Your task to perform on an android device: Go to eBay Image 0: 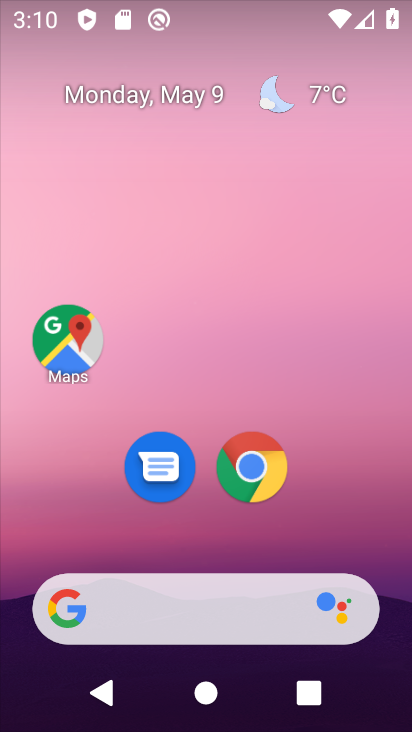
Step 0: click (254, 461)
Your task to perform on an android device: Go to eBay Image 1: 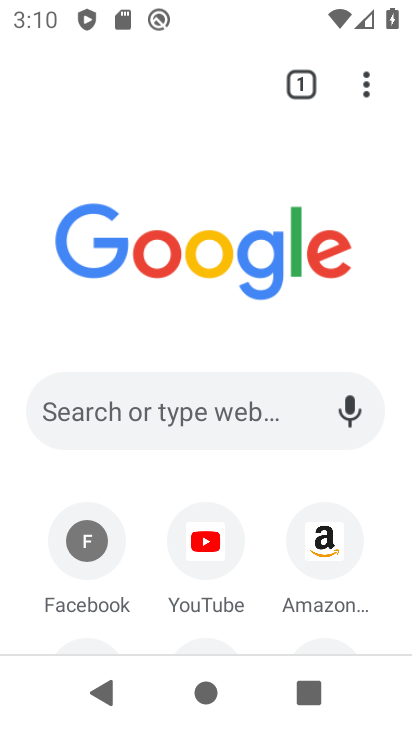
Step 1: drag from (386, 558) to (371, 344)
Your task to perform on an android device: Go to eBay Image 2: 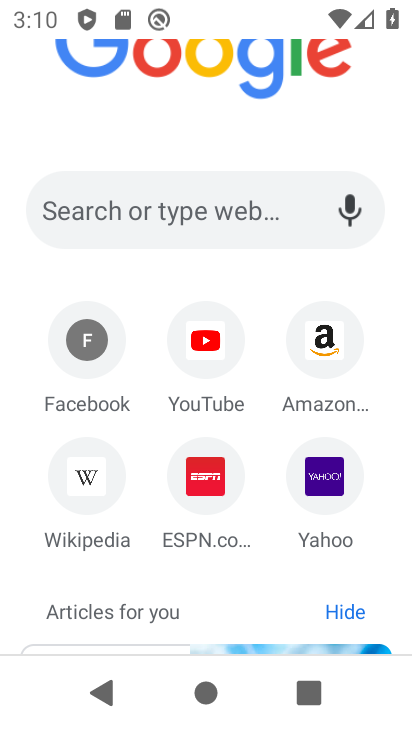
Step 2: click (78, 238)
Your task to perform on an android device: Go to eBay Image 3: 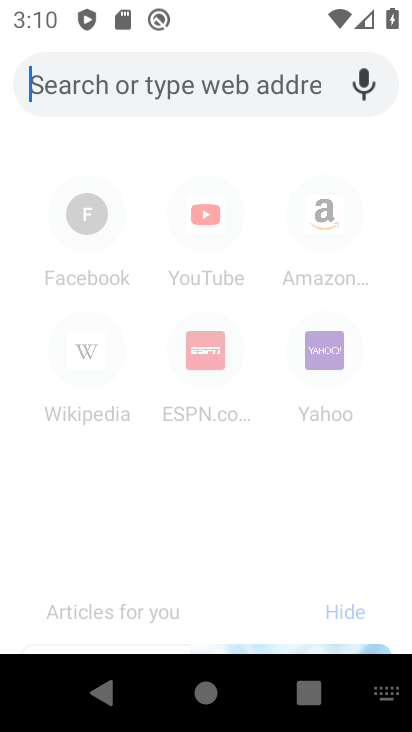
Step 3: type "ebay"
Your task to perform on an android device: Go to eBay Image 4: 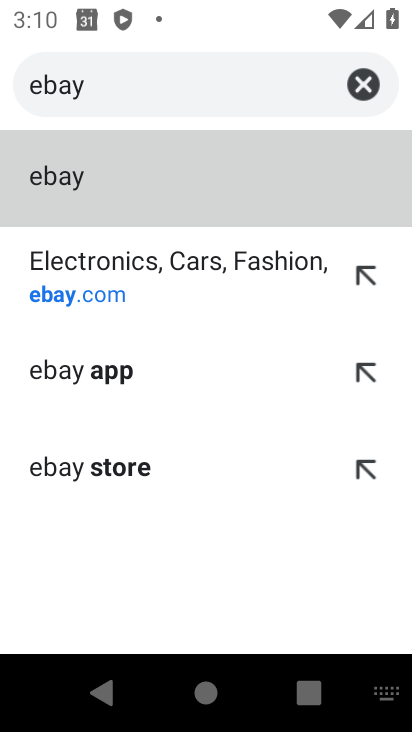
Step 4: click (77, 184)
Your task to perform on an android device: Go to eBay Image 5: 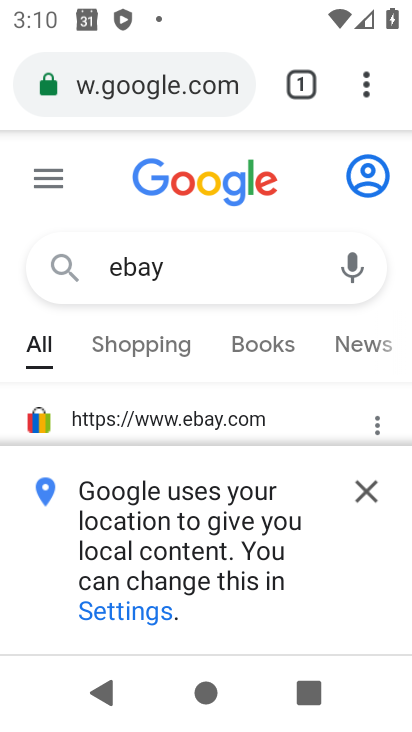
Step 5: drag from (160, 382) to (150, 211)
Your task to perform on an android device: Go to eBay Image 6: 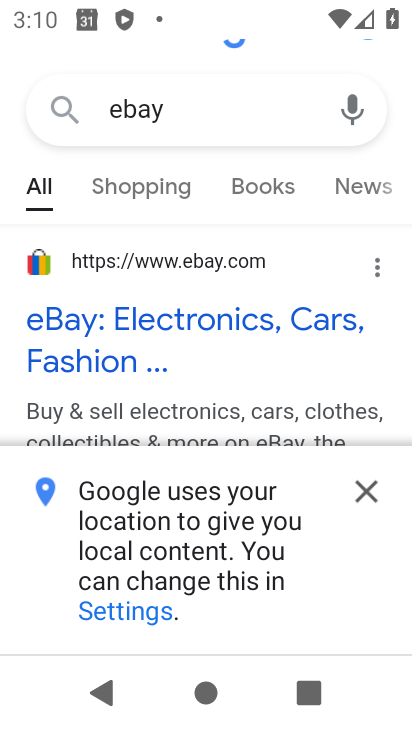
Step 6: click (55, 267)
Your task to perform on an android device: Go to eBay Image 7: 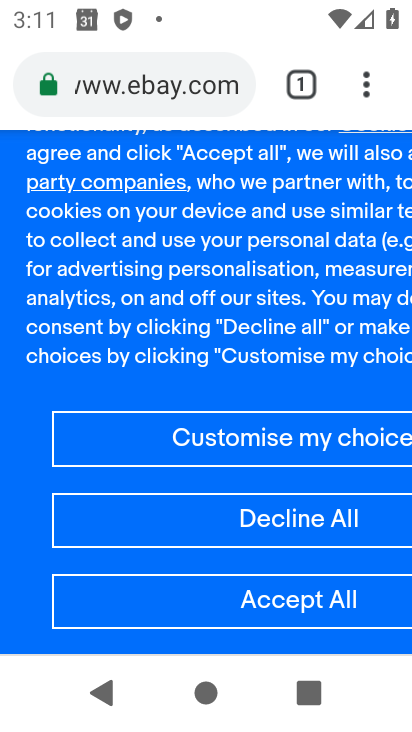
Step 7: task complete